Your task to perform on an android device: open chrome and create a bookmark for the current page Image 0: 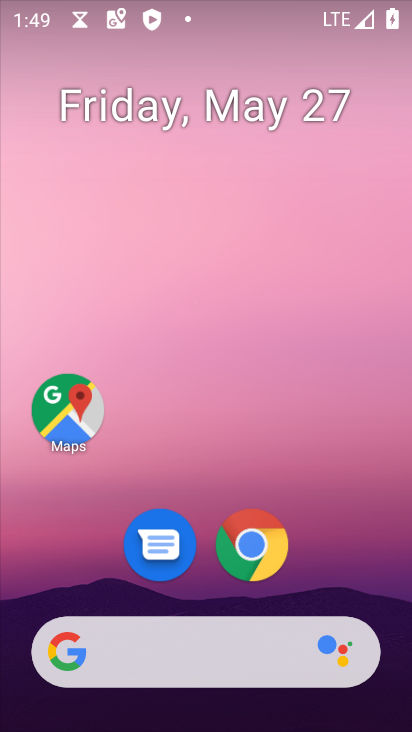
Step 0: press home button
Your task to perform on an android device: open chrome and create a bookmark for the current page Image 1: 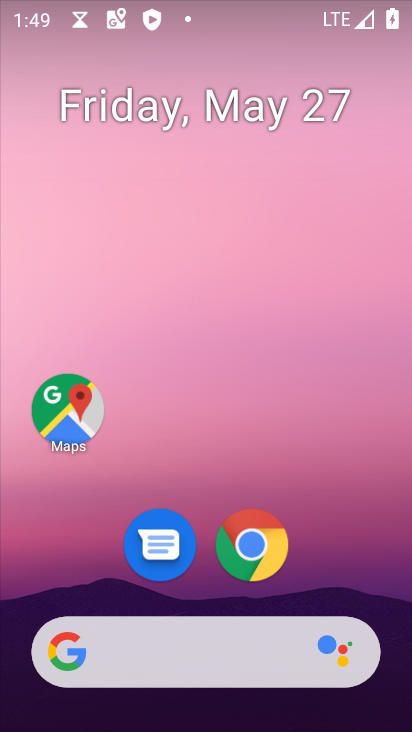
Step 1: click (274, 543)
Your task to perform on an android device: open chrome and create a bookmark for the current page Image 2: 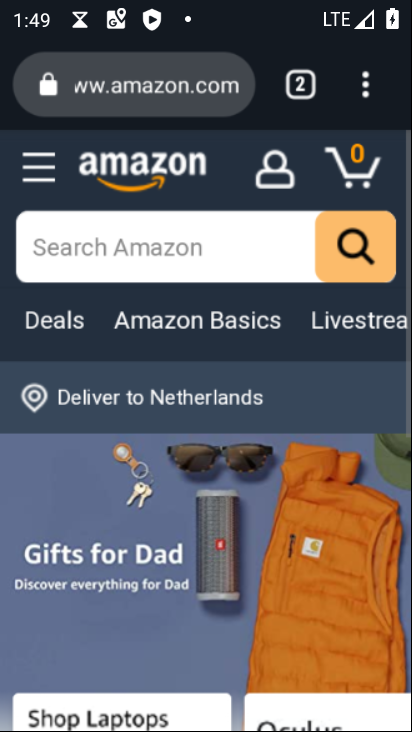
Step 2: click (354, 87)
Your task to perform on an android device: open chrome and create a bookmark for the current page Image 3: 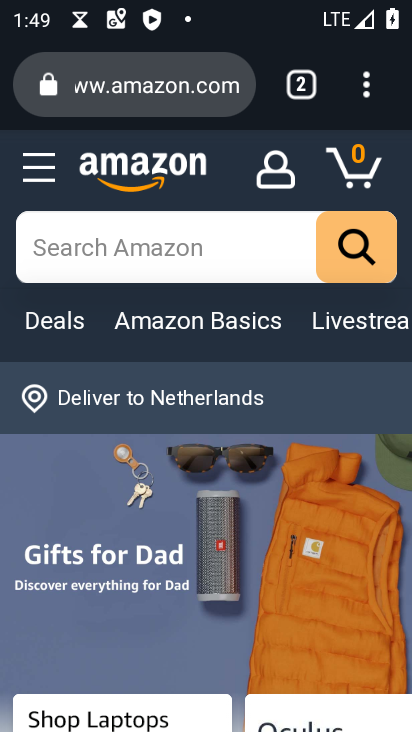
Step 3: click (372, 88)
Your task to perform on an android device: open chrome and create a bookmark for the current page Image 4: 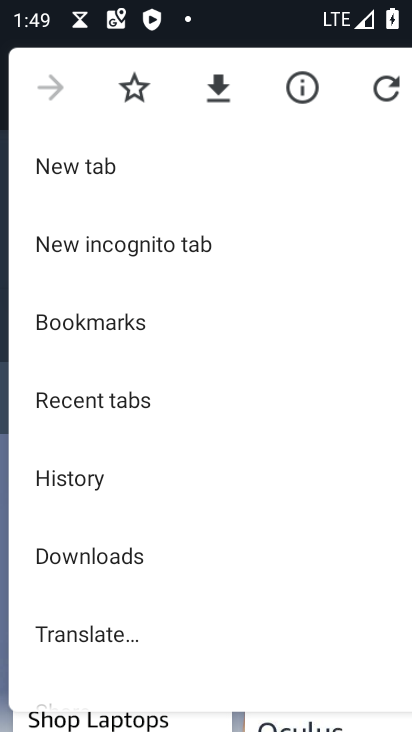
Step 4: click (136, 88)
Your task to perform on an android device: open chrome and create a bookmark for the current page Image 5: 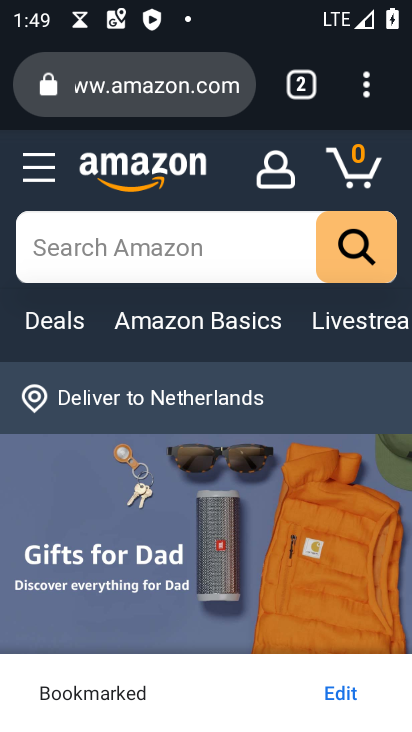
Step 5: task complete